Your task to perform on an android device: Go to Yahoo.com Image 0: 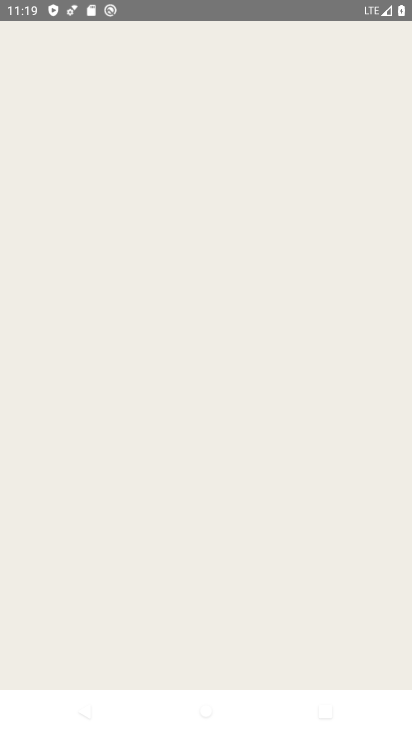
Step 0: press home button
Your task to perform on an android device: Go to Yahoo.com Image 1: 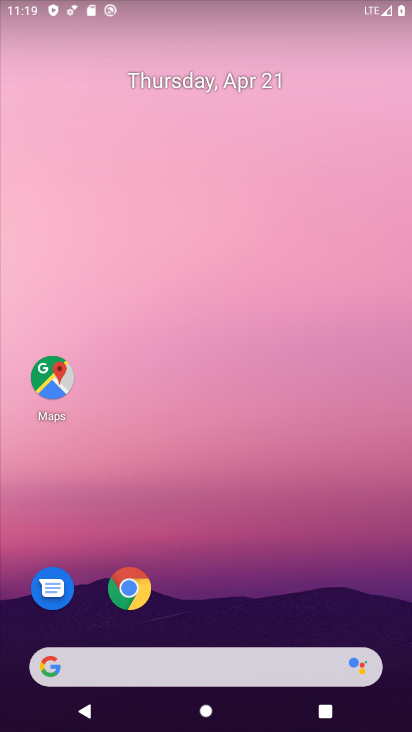
Step 1: drag from (264, 645) to (370, 110)
Your task to perform on an android device: Go to Yahoo.com Image 2: 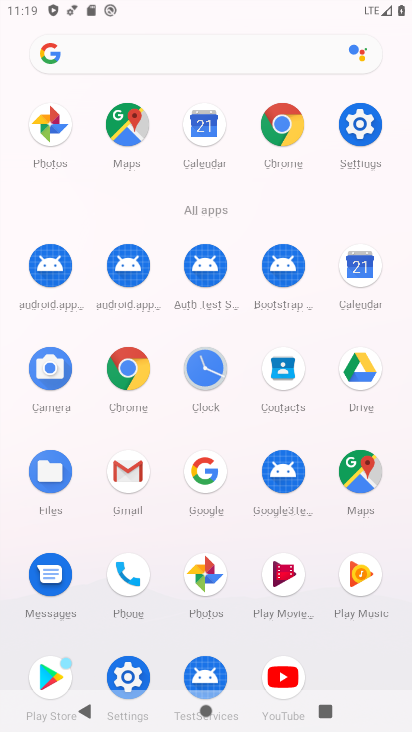
Step 2: click (280, 139)
Your task to perform on an android device: Go to Yahoo.com Image 3: 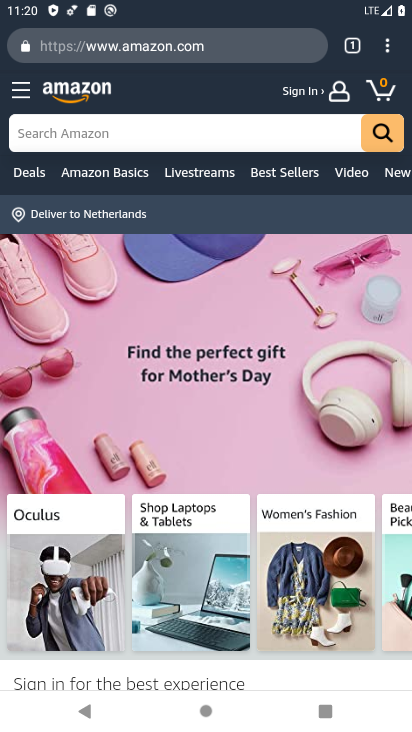
Step 3: click (203, 54)
Your task to perform on an android device: Go to Yahoo.com Image 4: 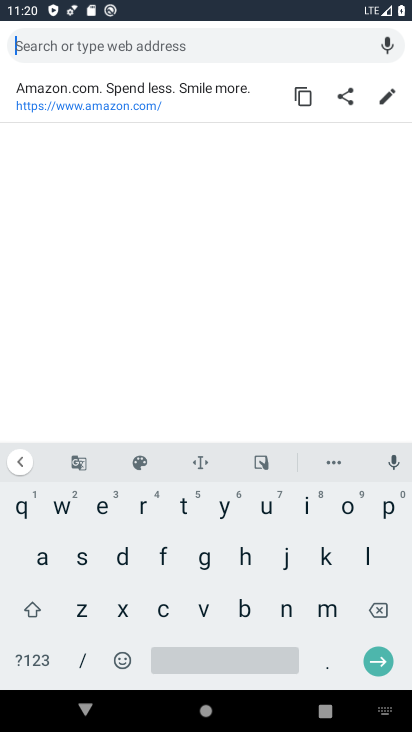
Step 4: click (219, 521)
Your task to perform on an android device: Go to Yahoo.com Image 5: 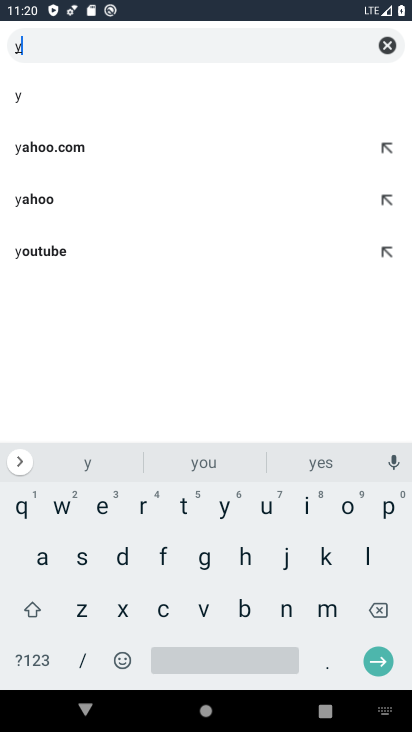
Step 5: click (118, 150)
Your task to perform on an android device: Go to Yahoo.com Image 6: 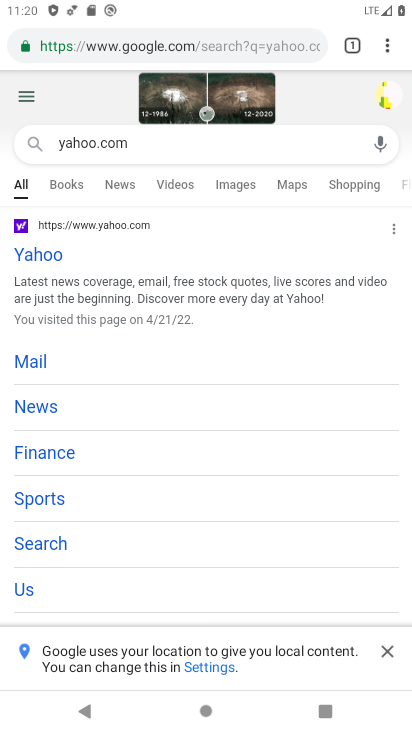
Step 6: click (33, 250)
Your task to perform on an android device: Go to Yahoo.com Image 7: 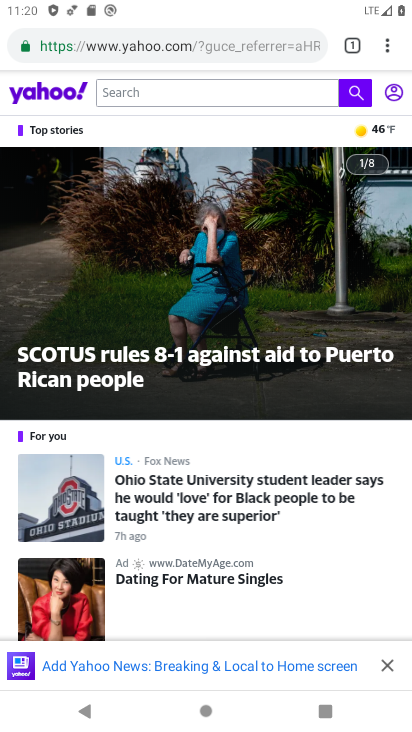
Step 7: task complete